Your task to perform on an android device: Open calendar and show me the second week of next month Image 0: 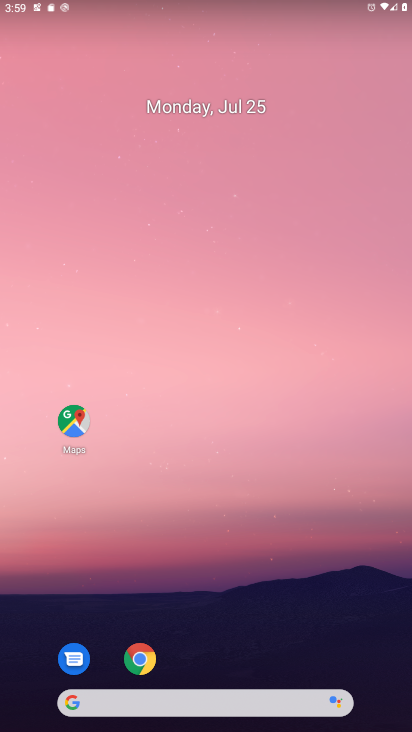
Step 0: drag from (188, 608) to (194, 147)
Your task to perform on an android device: Open calendar and show me the second week of next month Image 1: 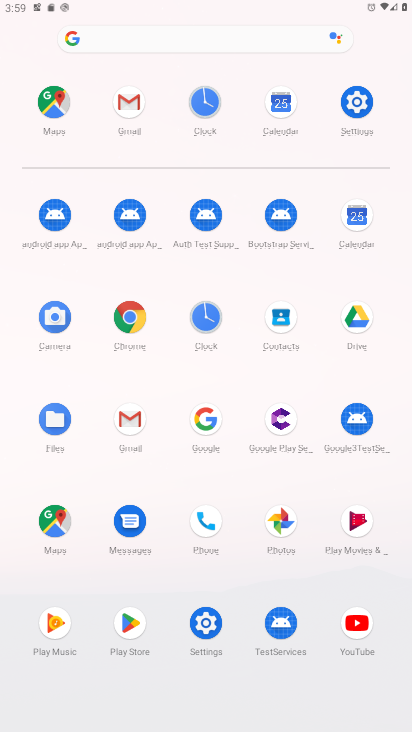
Step 1: click (352, 219)
Your task to perform on an android device: Open calendar and show me the second week of next month Image 2: 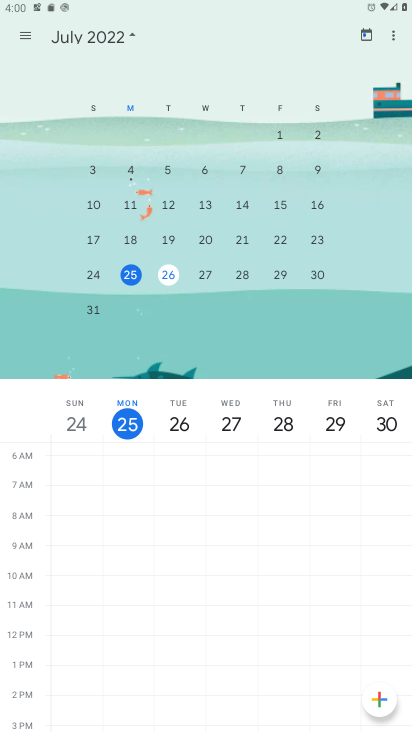
Step 2: click (73, 38)
Your task to perform on an android device: Open calendar and show me the second week of next month Image 3: 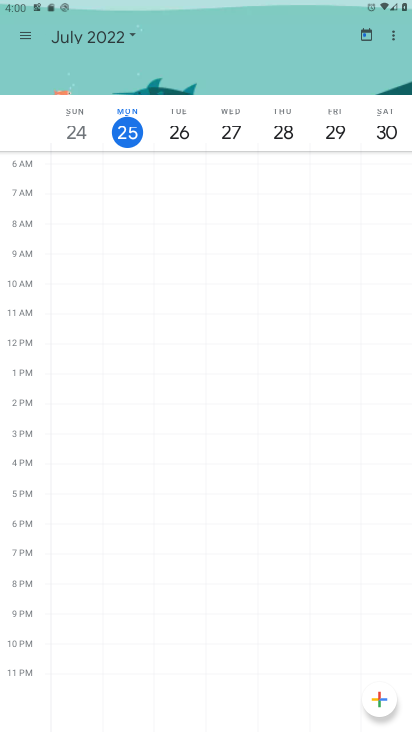
Step 3: click (121, 33)
Your task to perform on an android device: Open calendar and show me the second week of next month Image 4: 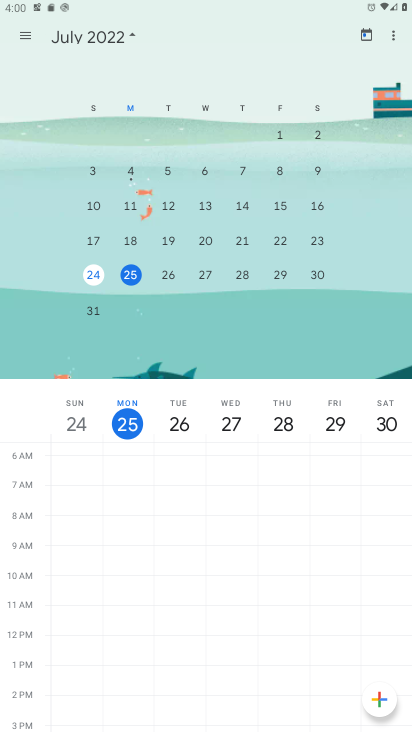
Step 4: drag from (307, 235) to (76, 268)
Your task to perform on an android device: Open calendar and show me the second week of next month Image 5: 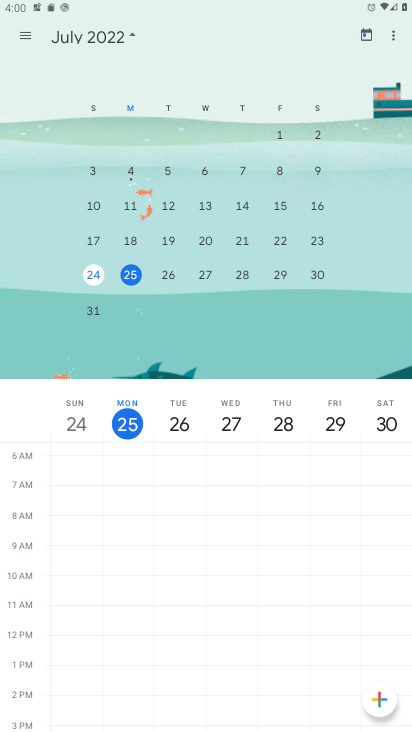
Step 5: drag from (275, 245) to (93, 280)
Your task to perform on an android device: Open calendar and show me the second week of next month Image 6: 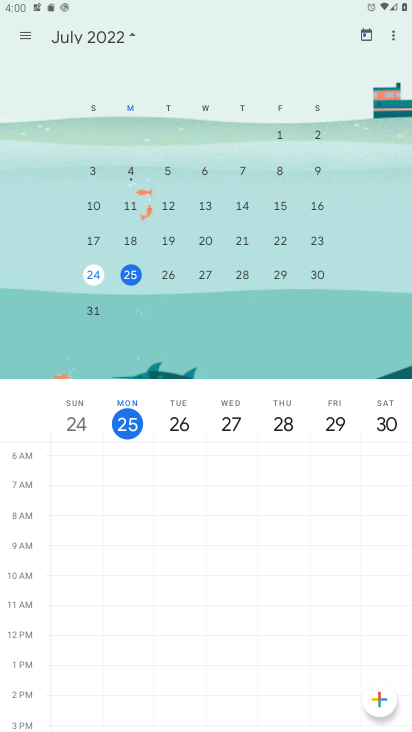
Step 6: drag from (319, 224) to (31, 220)
Your task to perform on an android device: Open calendar and show me the second week of next month Image 7: 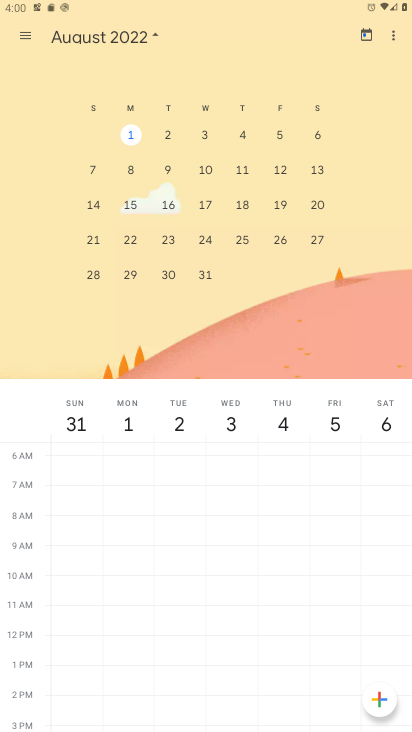
Step 7: click (92, 174)
Your task to perform on an android device: Open calendar and show me the second week of next month Image 8: 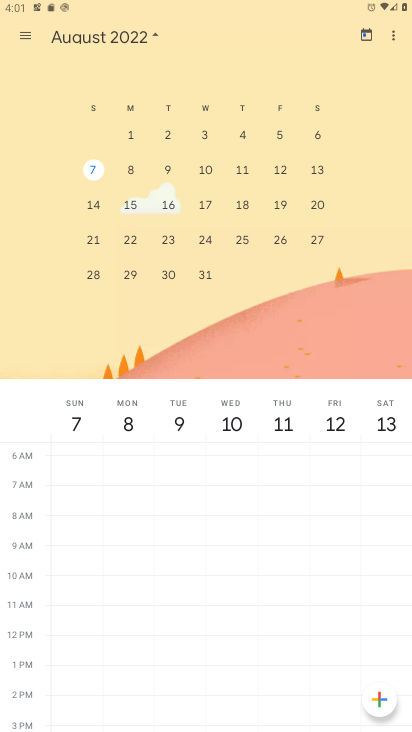
Step 8: task complete